Your task to perform on an android device: change text size in settings app Image 0: 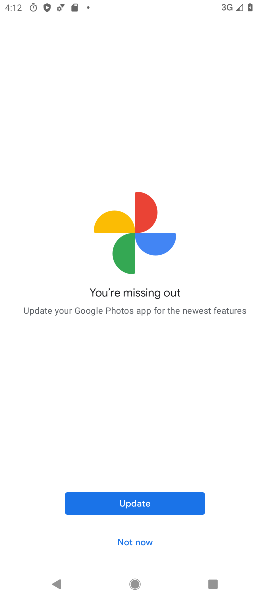
Step 0: press home button
Your task to perform on an android device: change text size in settings app Image 1: 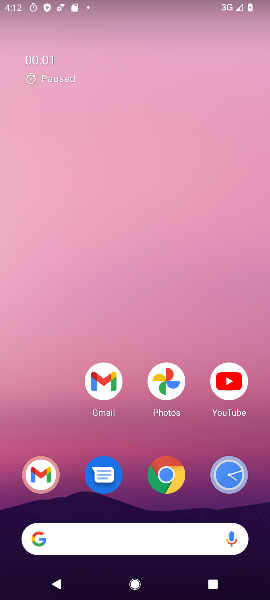
Step 1: drag from (2, 585) to (109, 347)
Your task to perform on an android device: change text size in settings app Image 2: 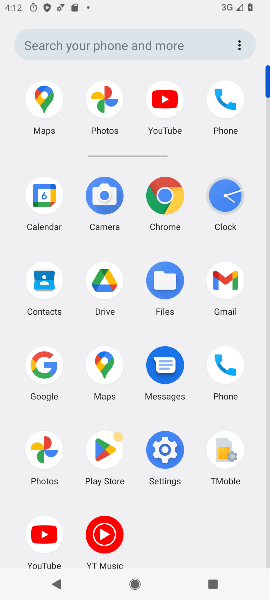
Step 2: click (157, 456)
Your task to perform on an android device: change text size in settings app Image 3: 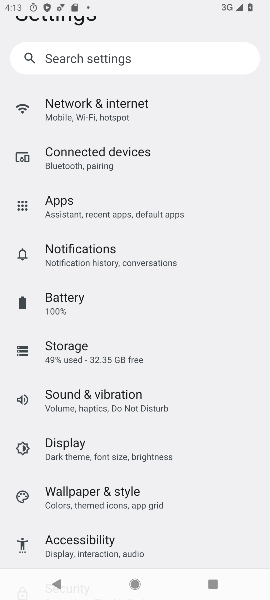
Step 3: click (90, 457)
Your task to perform on an android device: change text size in settings app Image 4: 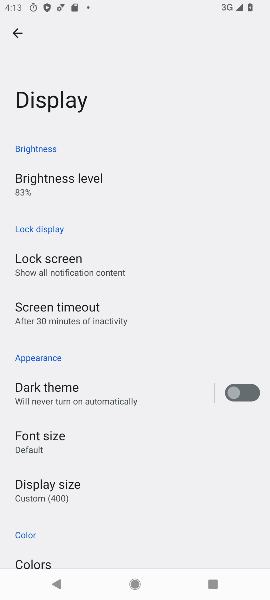
Step 4: click (43, 434)
Your task to perform on an android device: change text size in settings app Image 5: 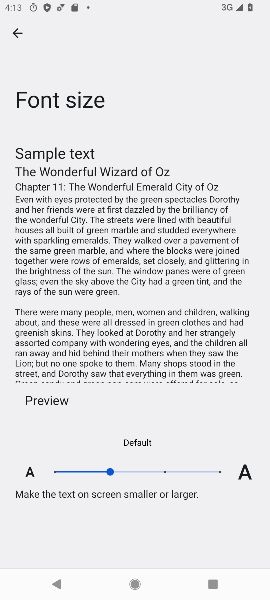
Step 5: click (135, 468)
Your task to perform on an android device: change text size in settings app Image 6: 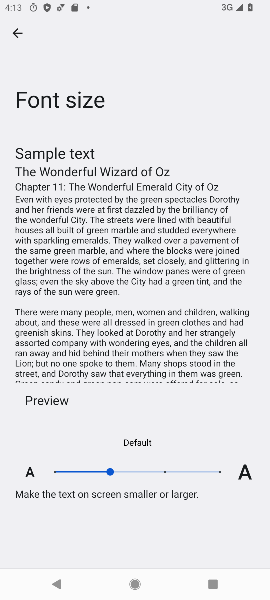
Step 6: click (136, 467)
Your task to perform on an android device: change text size in settings app Image 7: 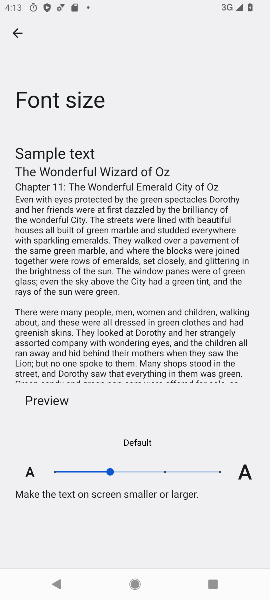
Step 7: click (127, 471)
Your task to perform on an android device: change text size in settings app Image 8: 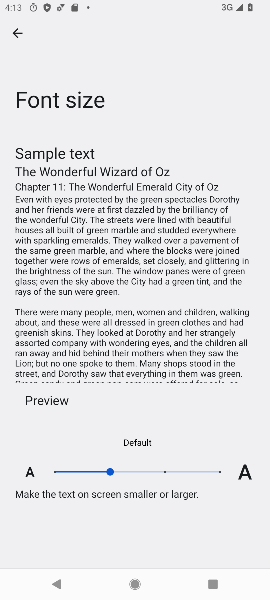
Step 8: click (141, 469)
Your task to perform on an android device: change text size in settings app Image 9: 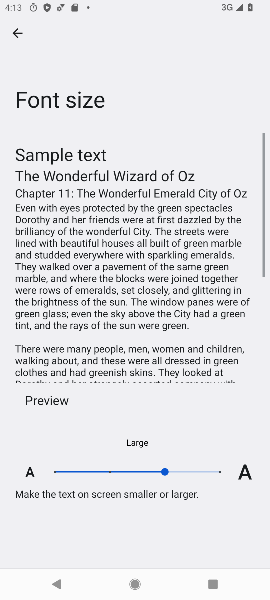
Step 9: click (141, 469)
Your task to perform on an android device: change text size in settings app Image 10: 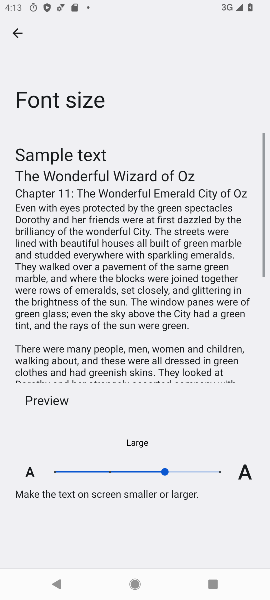
Step 10: click (141, 469)
Your task to perform on an android device: change text size in settings app Image 11: 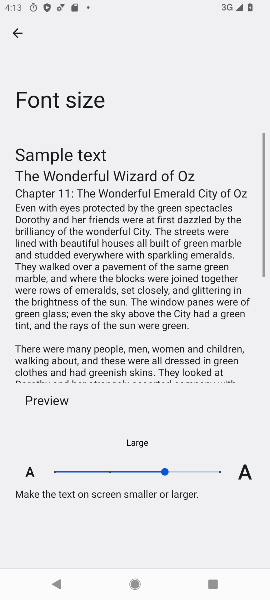
Step 11: click (141, 469)
Your task to perform on an android device: change text size in settings app Image 12: 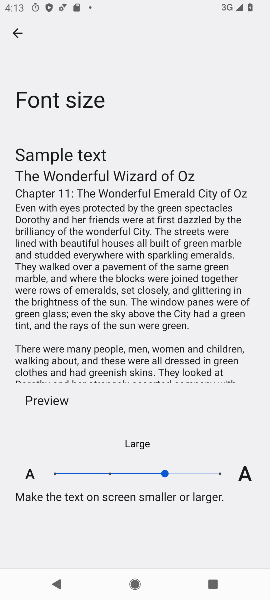
Step 12: task complete